Your task to perform on an android device: Open the stopwatch Image 0: 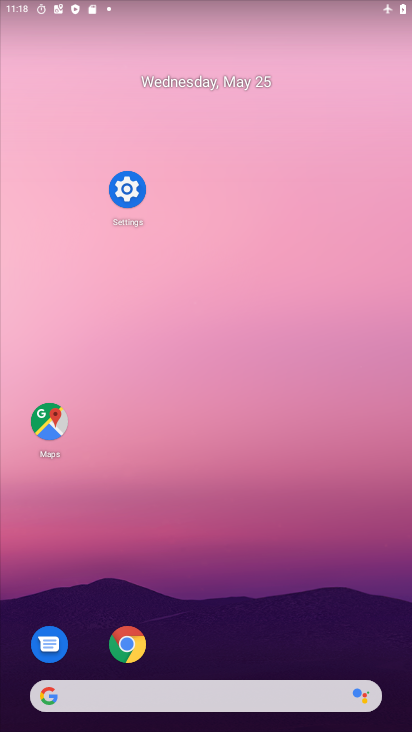
Step 0: drag from (260, 606) to (277, 73)
Your task to perform on an android device: Open the stopwatch Image 1: 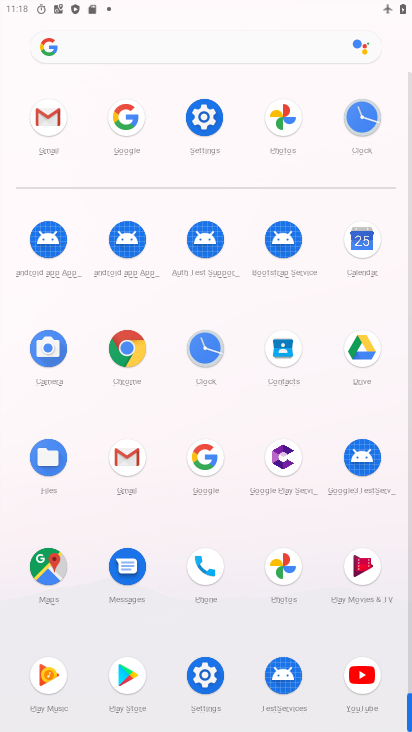
Step 1: click (206, 358)
Your task to perform on an android device: Open the stopwatch Image 2: 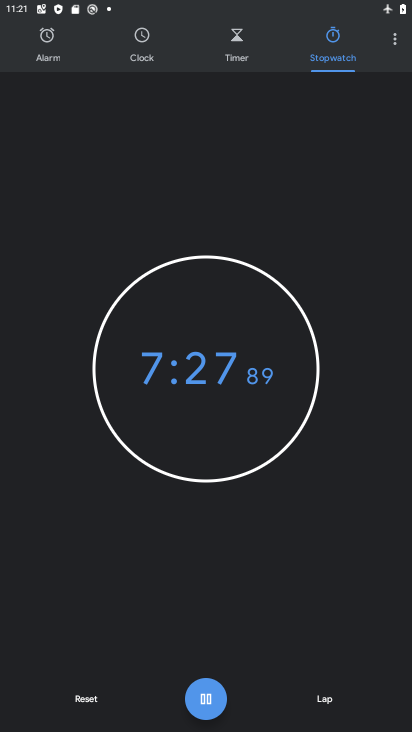
Step 2: task complete